Your task to perform on an android device: open sync settings in chrome Image 0: 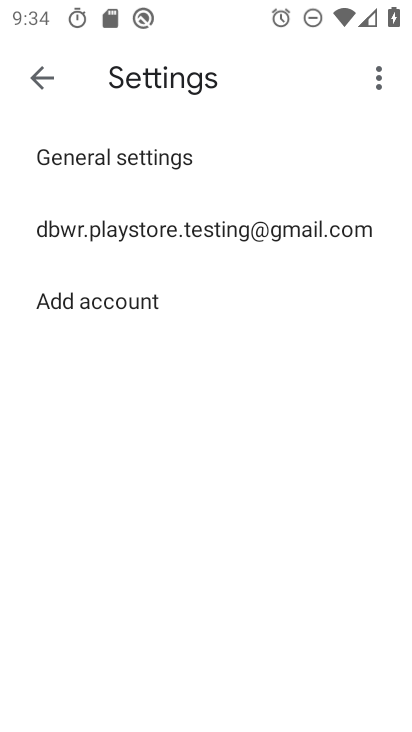
Step 0: press home button
Your task to perform on an android device: open sync settings in chrome Image 1: 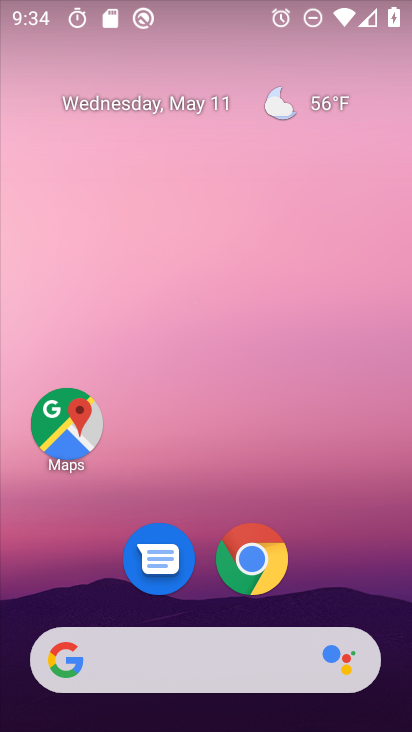
Step 1: click (250, 555)
Your task to perform on an android device: open sync settings in chrome Image 2: 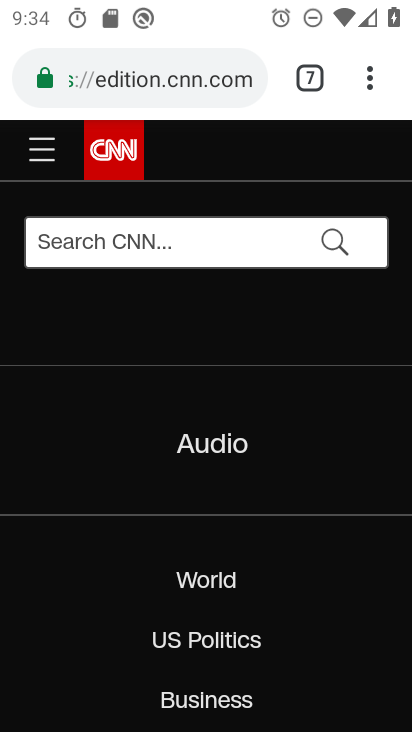
Step 2: click (377, 75)
Your task to perform on an android device: open sync settings in chrome Image 3: 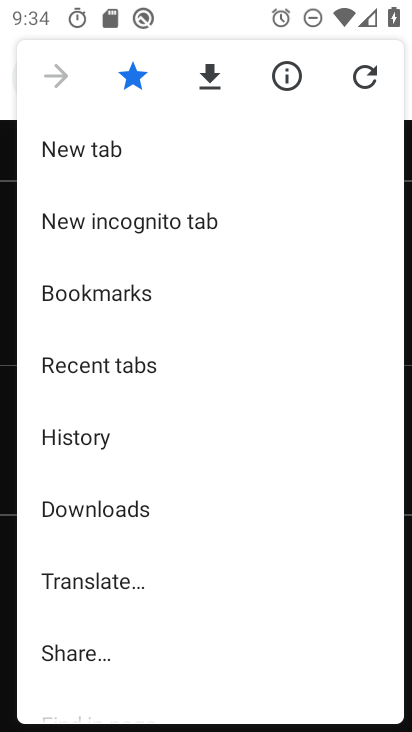
Step 3: drag from (203, 647) to (212, 382)
Your task to perform on an android device: open sync settings in chrome Image 4: 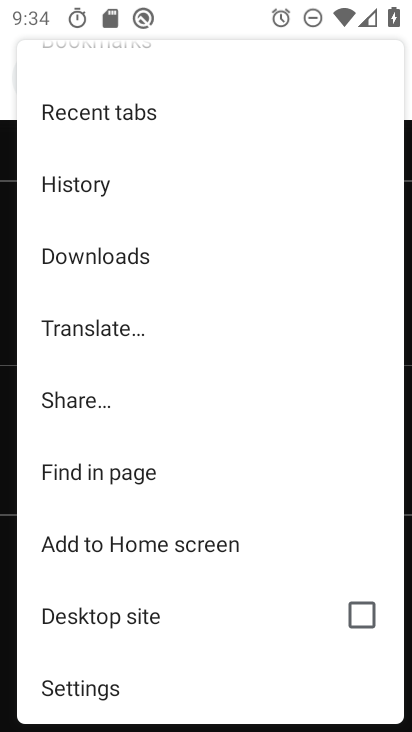
Step 4: click (75, 689)
Your task to perform on an android device: open sync settings in chrome Image 5: 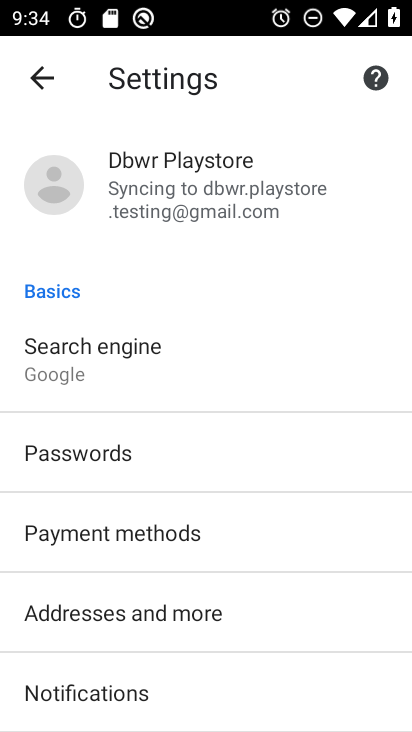
Step 5: click (201, 181)
Your task to perform on an android device: open sync settings in chrome Image 6: 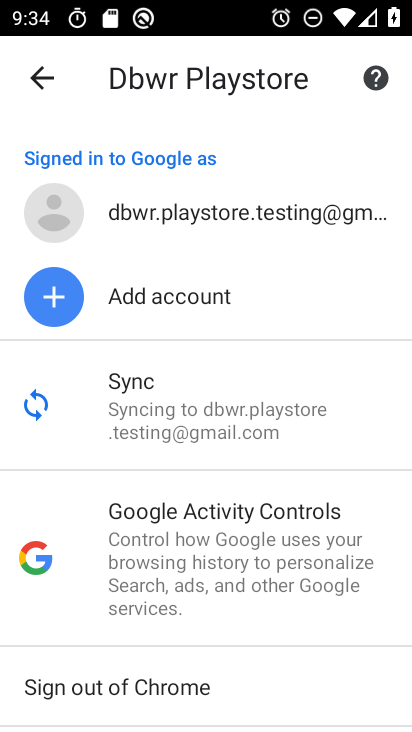
Step 6: click (233, 400)
Your task to perform on an android device: open sync settings in chrome Image 7: 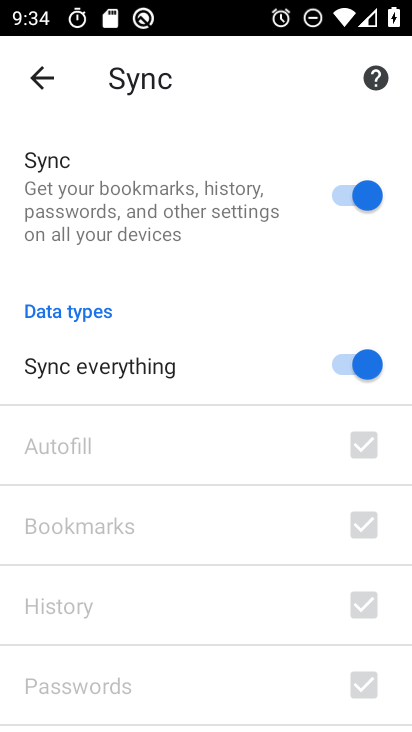
Step 7: task complete